Your task to perform on an android device: Go to Wikipedia Image 0: 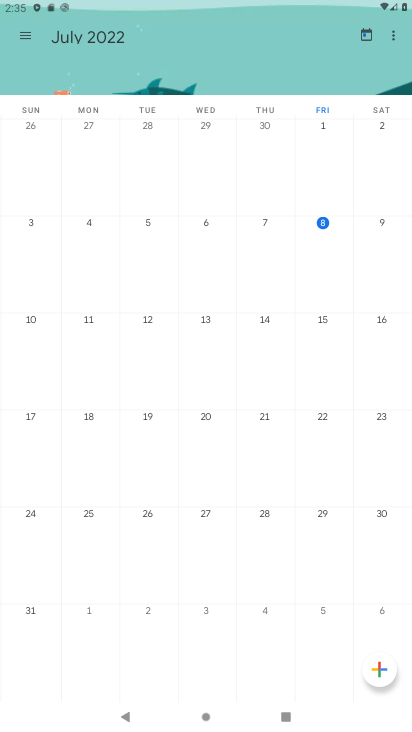
Step 0: press home button
Your task to perform on an android device: Go to Wikipedia Image 1: 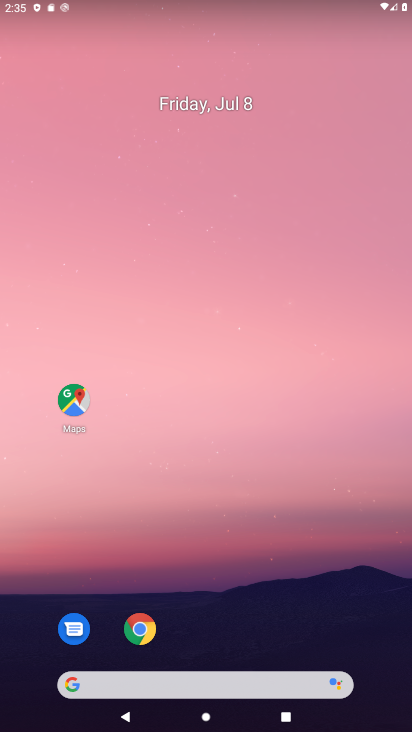
Step 1: click (117, 679)
Your task to perform on an android device: Go to Wikipedia Image 2: 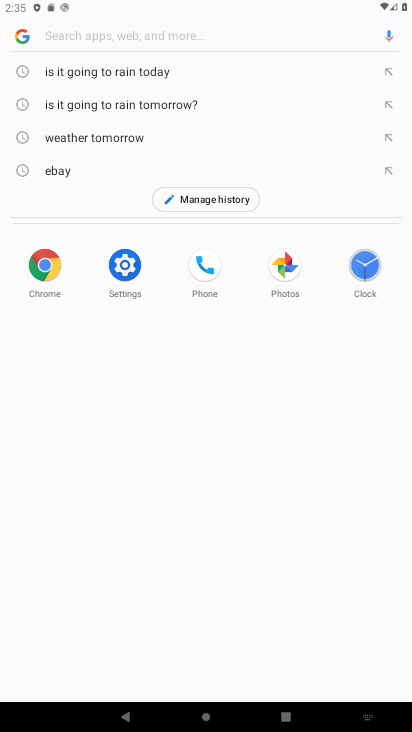
Step 2: type "Wikipedia"
Your task to perform on an android device: Go to Wikipedia Image 3: 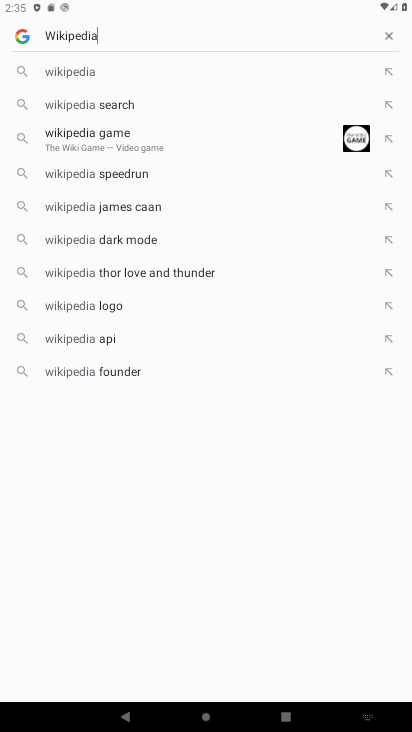
Step 3: click (110, 73)
Your task to perform on an android device: Go to Wikipedia Image 4: 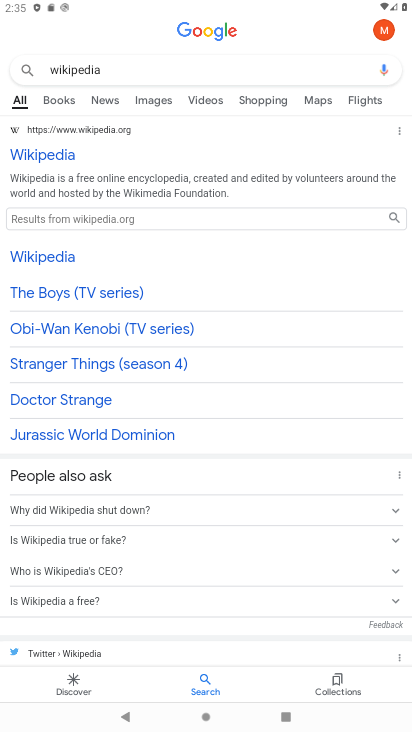
Step 4: task complete